Your task to perform on an android device: delete location history Image 0: 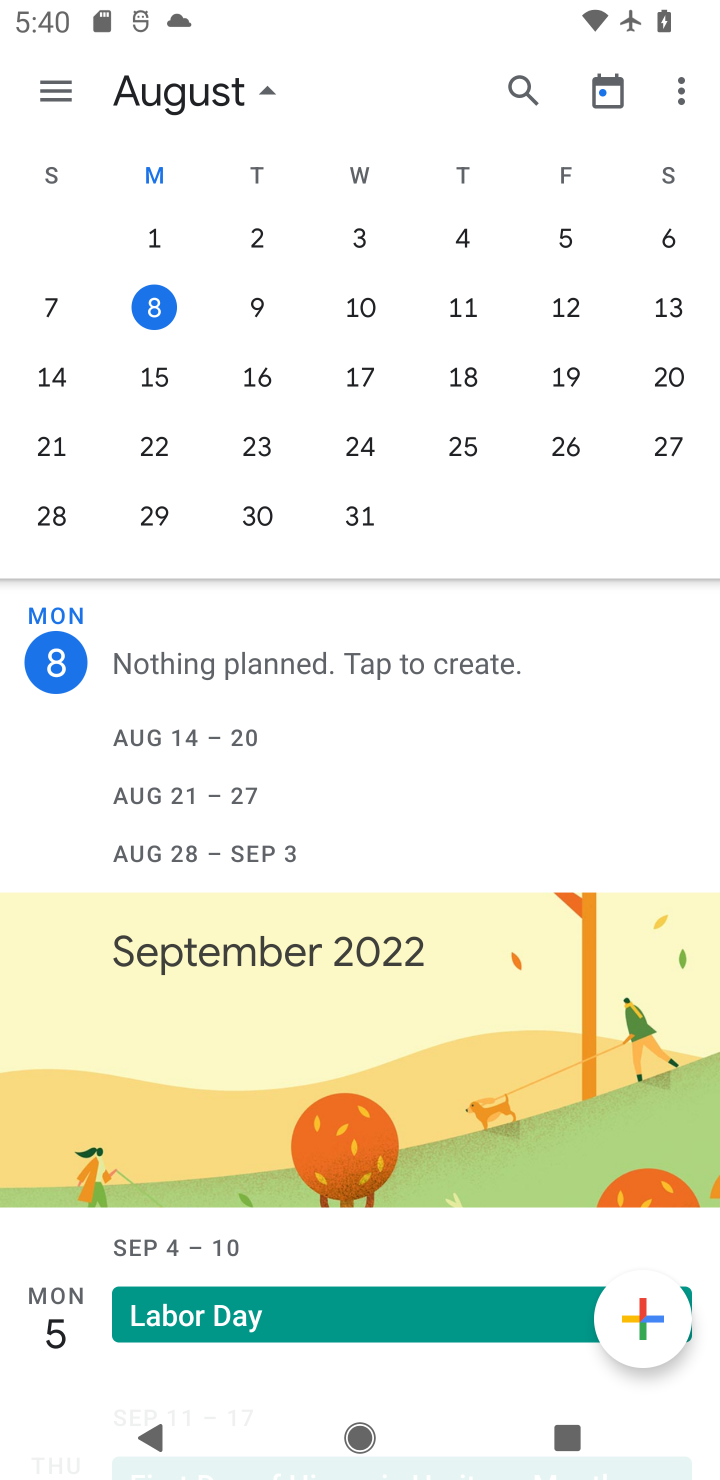
Step 0: press home button
Your task to perform on an android device: delete location history Image 1: 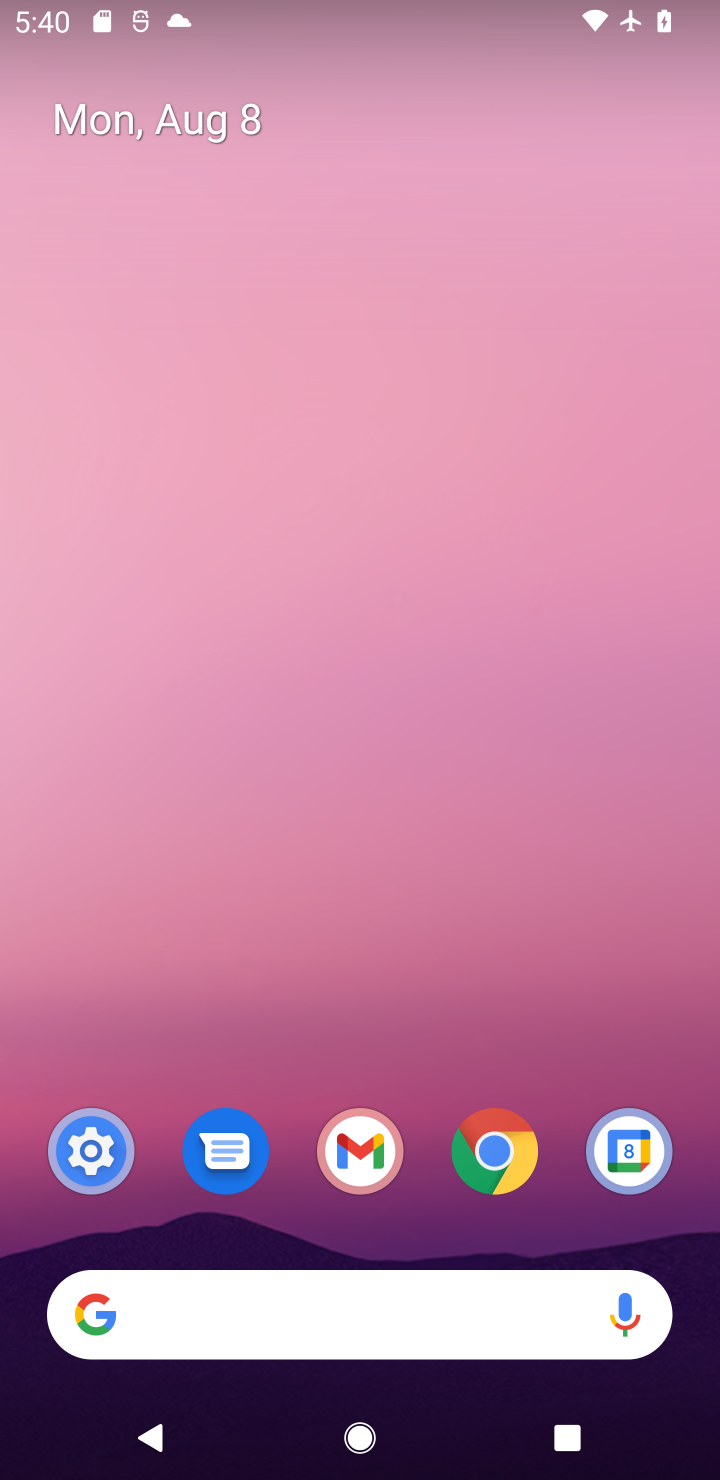
Step 1: drag from (333, 1018) to (333, 133)
Your task to perform on an android device: delete location history Image 2: 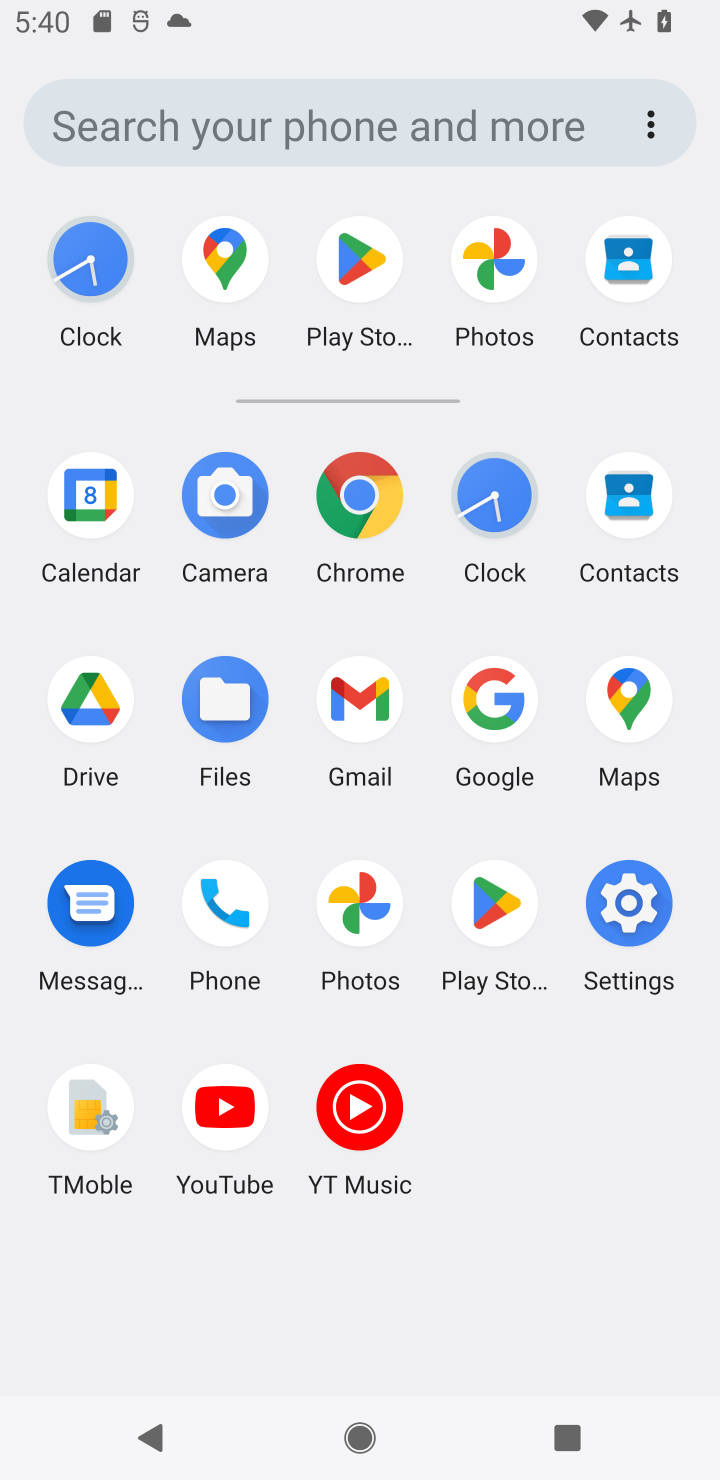
Step 2: click (606, 707)
Your task to perform on an android device: delete location history Image 3: 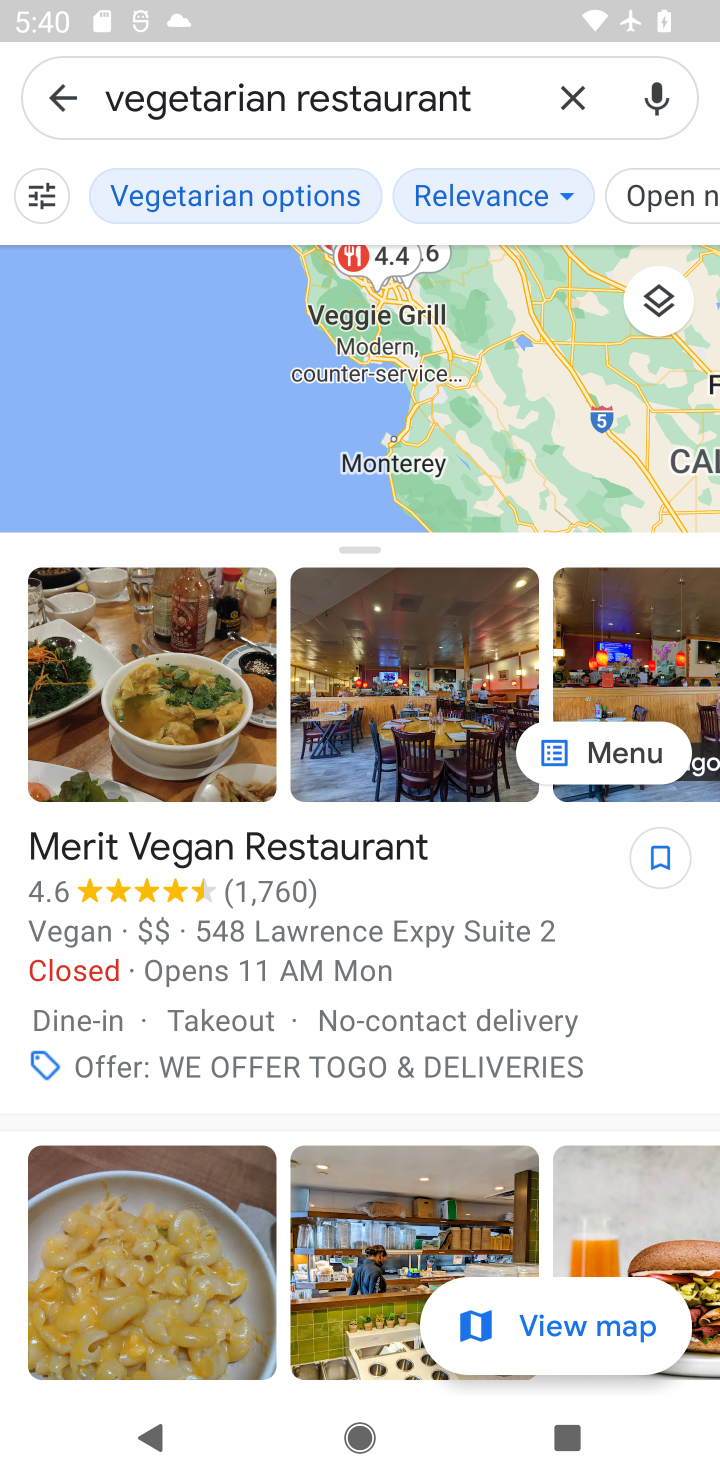
Step 3: click (72, 77)
Your task to perform on an android device: delete location history Image 4: 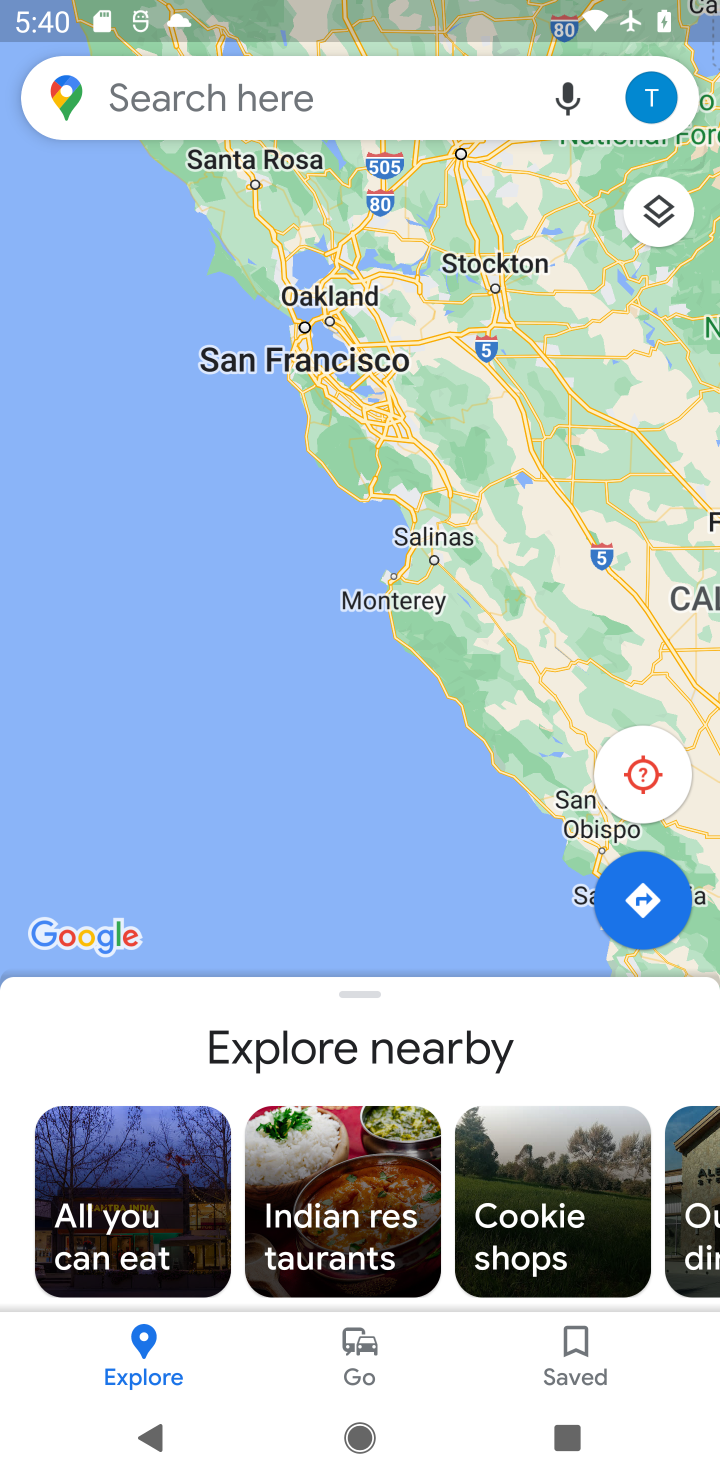
Step 4: click (655, 111)
Your task to perform on an android device: delete location history Image 5: 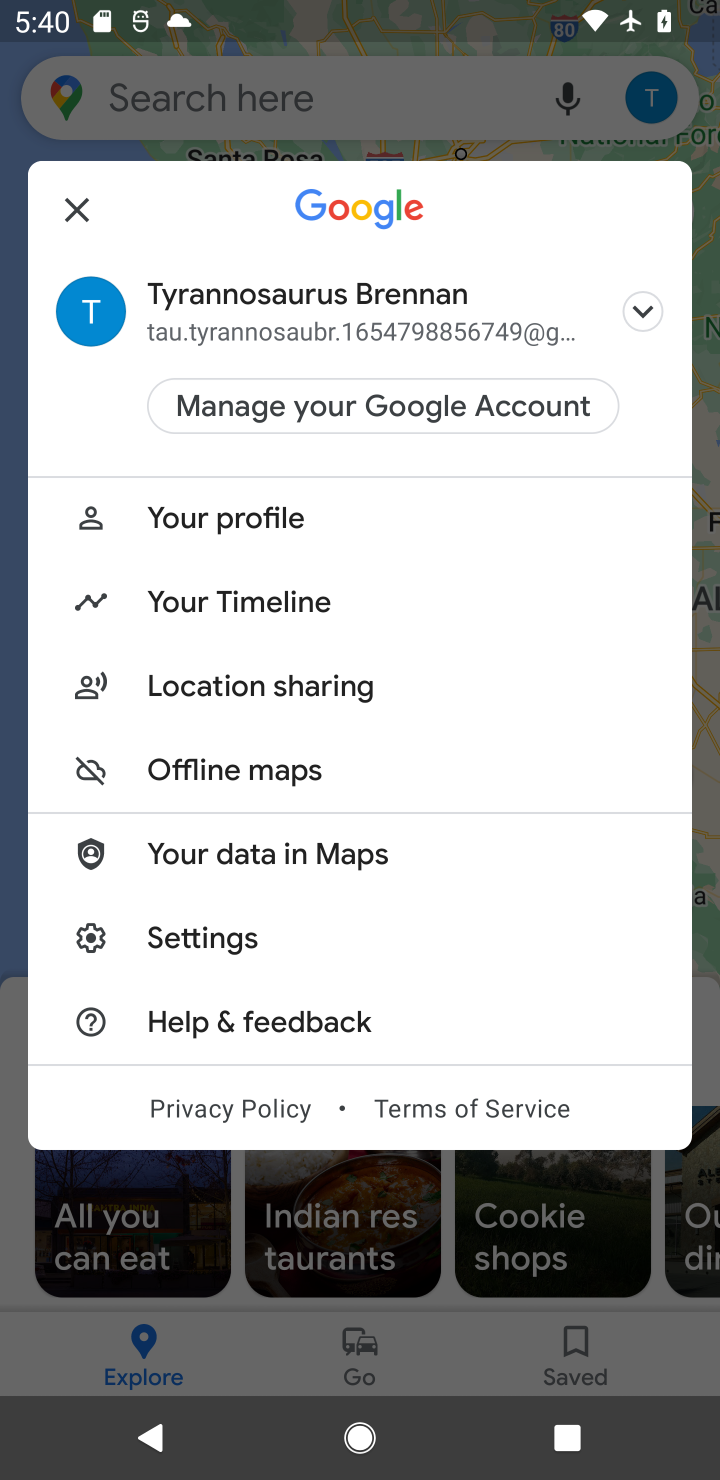
Step 5: click (236, 603)
Your task to perform on an android device: delete location history Image 6: 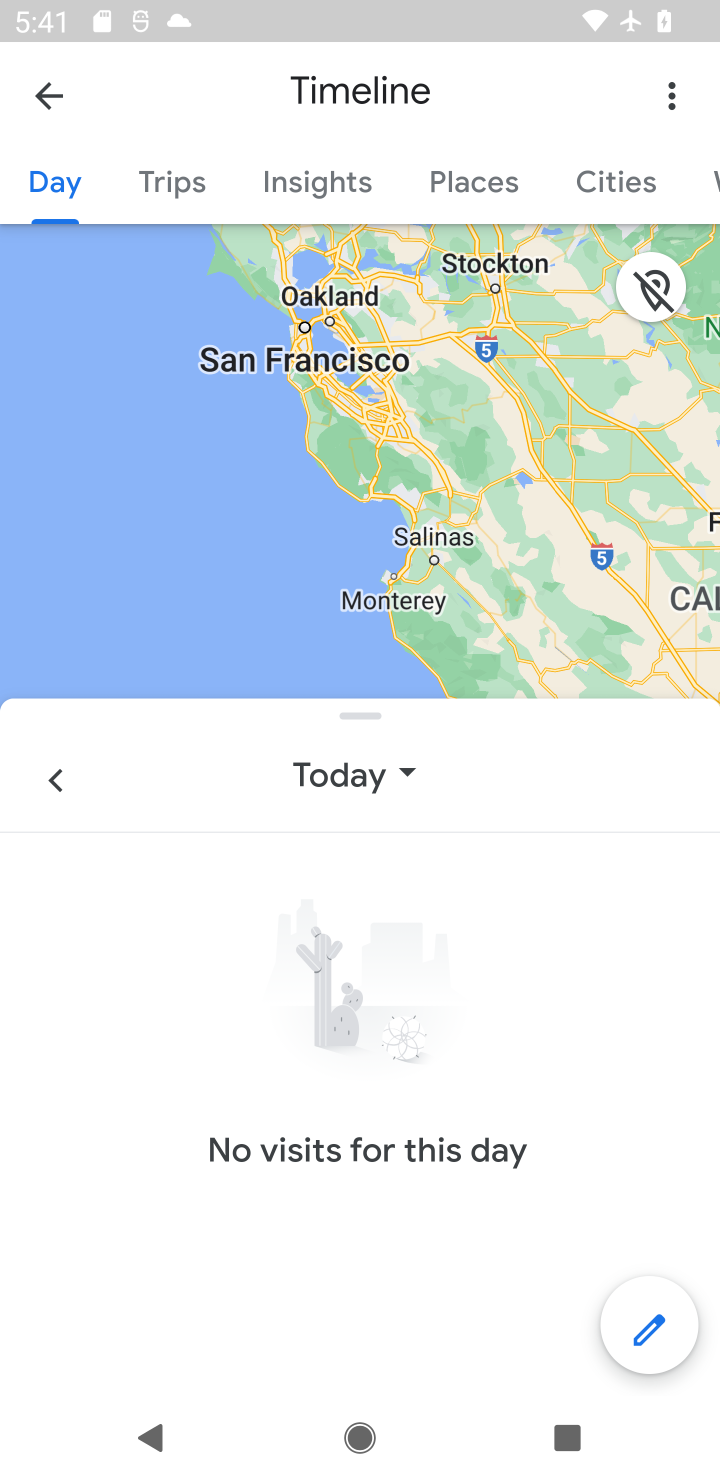
Step 6: click (664, 95)
Your task to perform on an android device: delete location history Image 7: 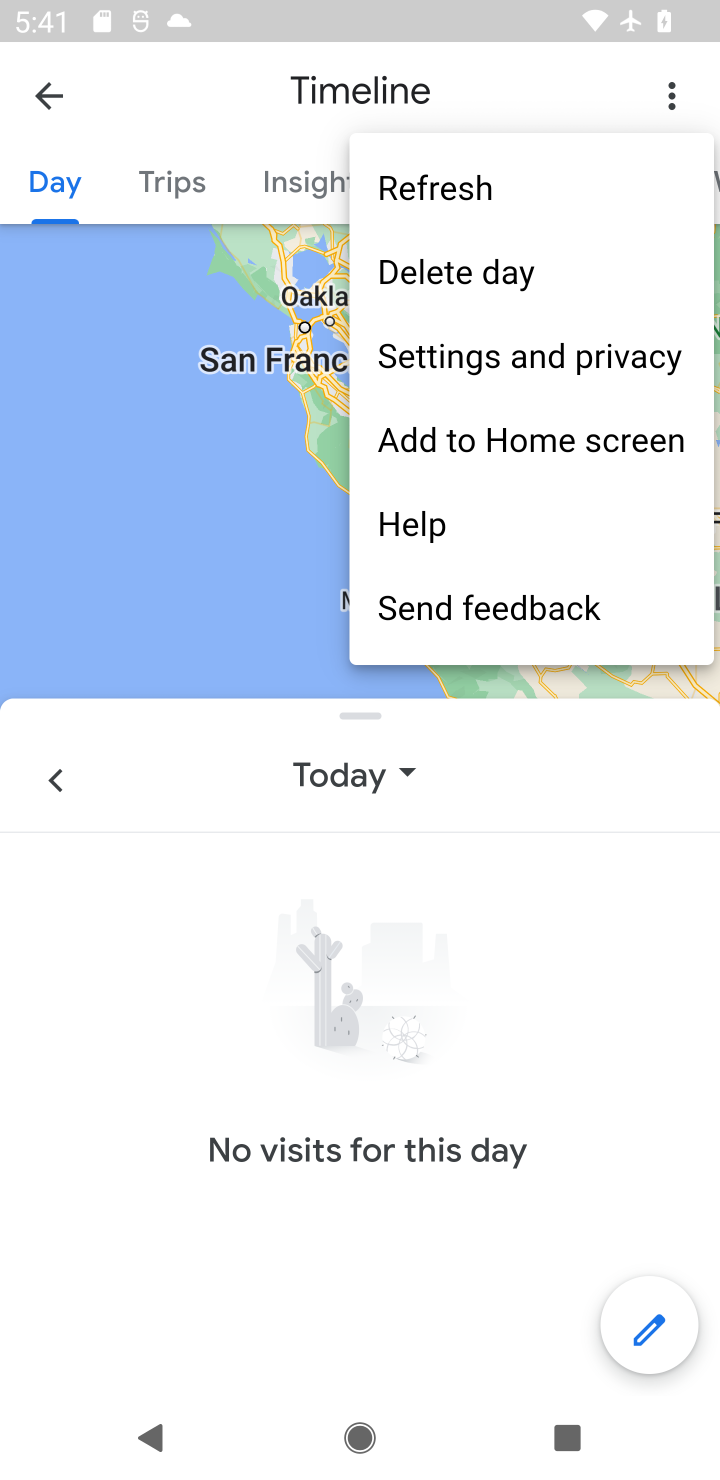
Step 7: click (487, 337)
Your task to perform on an android device: delete location history Image 8: 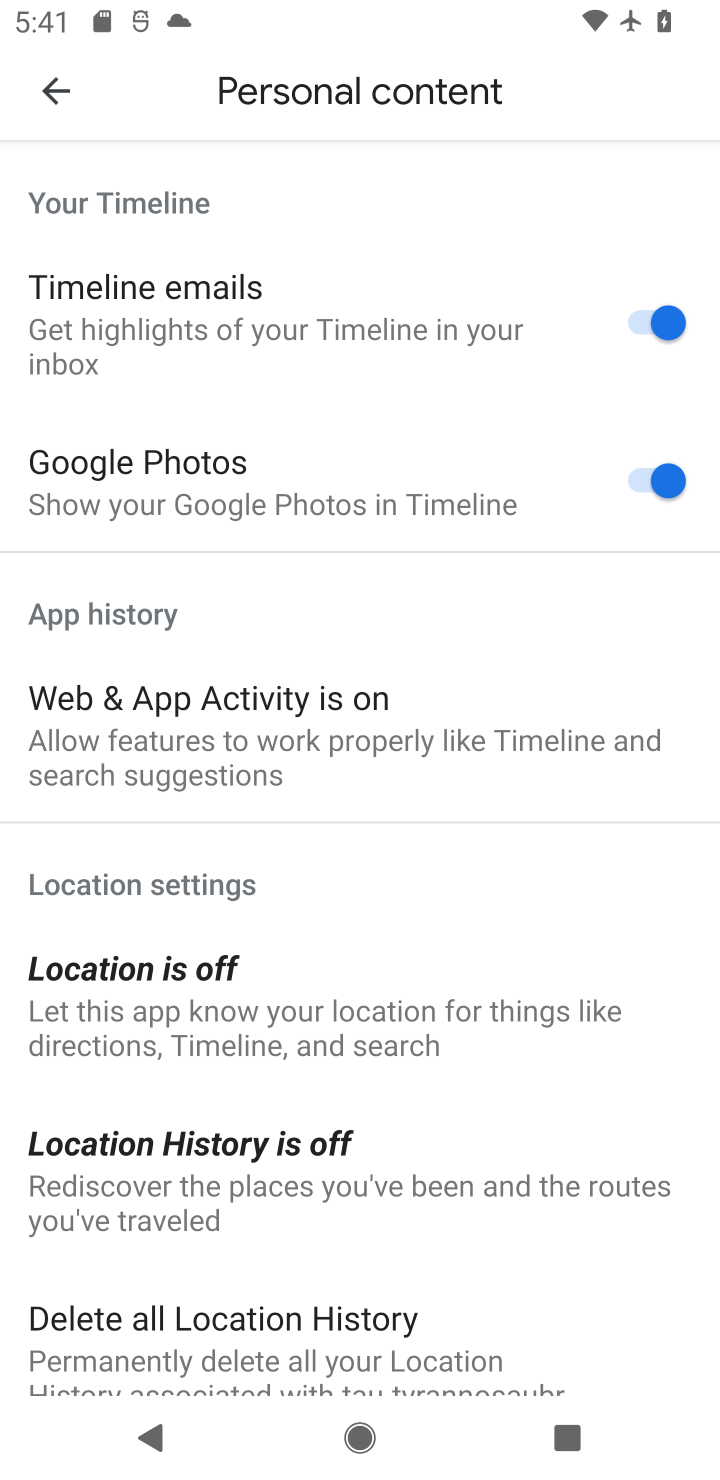
Step 8: drag from (407, 1245) to (381, 626)
Your task to perform on an android device: delete location history Image 9: 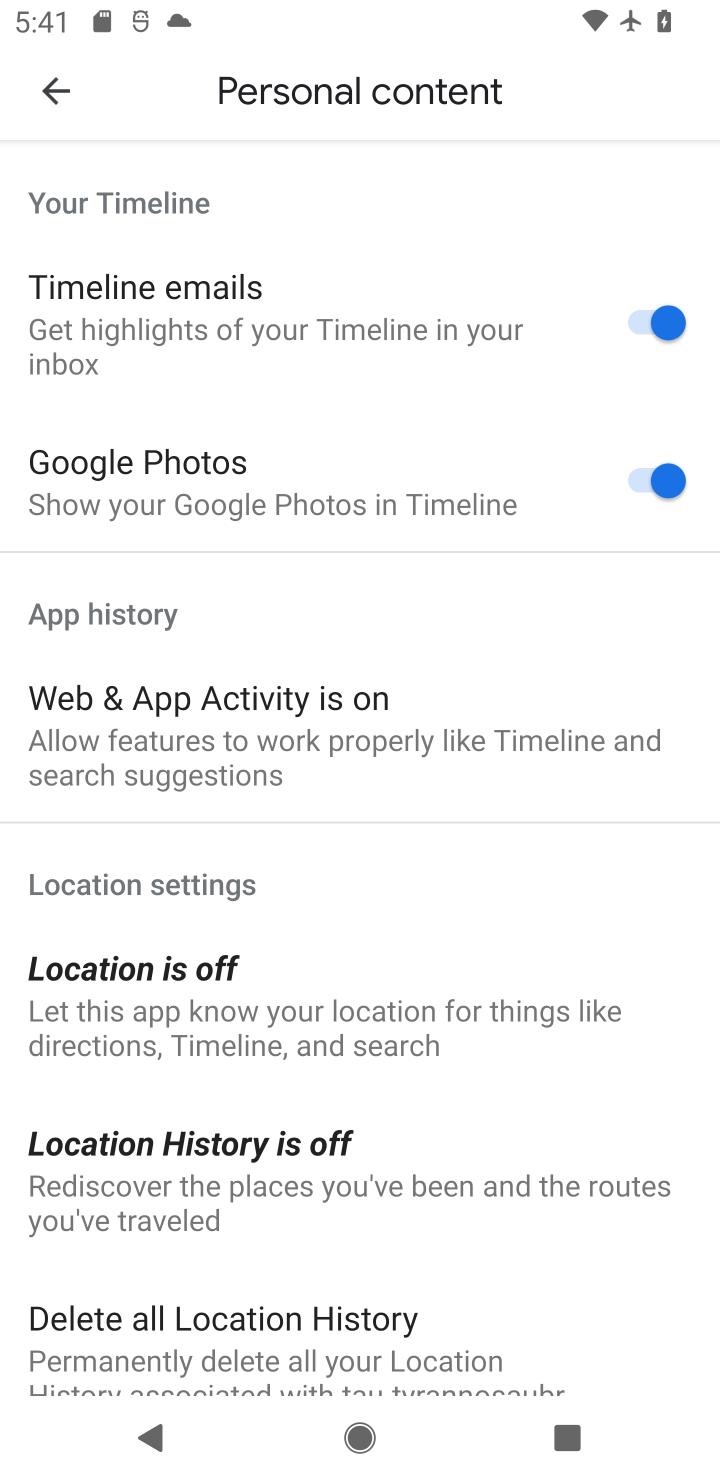
Step 9: click (305, 1329)
Your task to perform on an android device: delete location history Image 10: 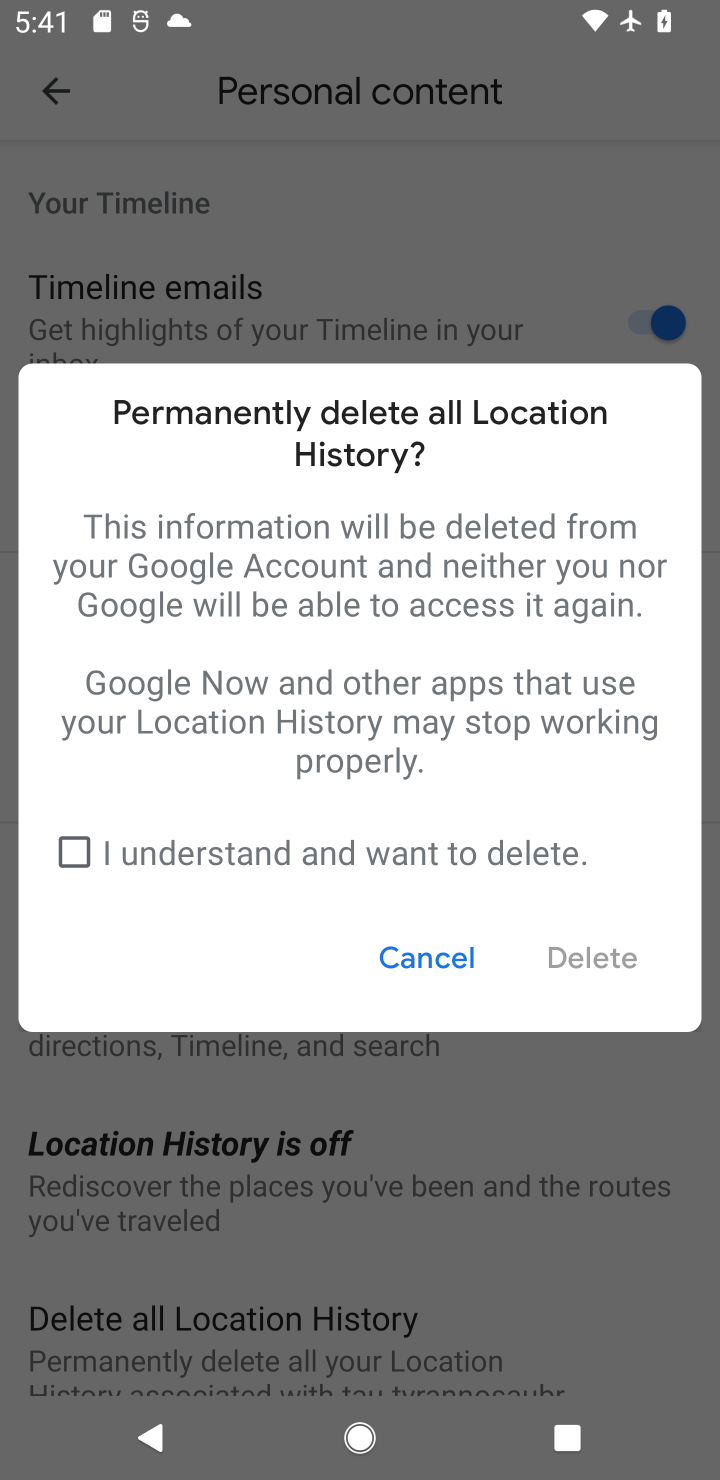
Step 10: click (384, 854)
Your task to perform on an android device: delete location history Image 11: 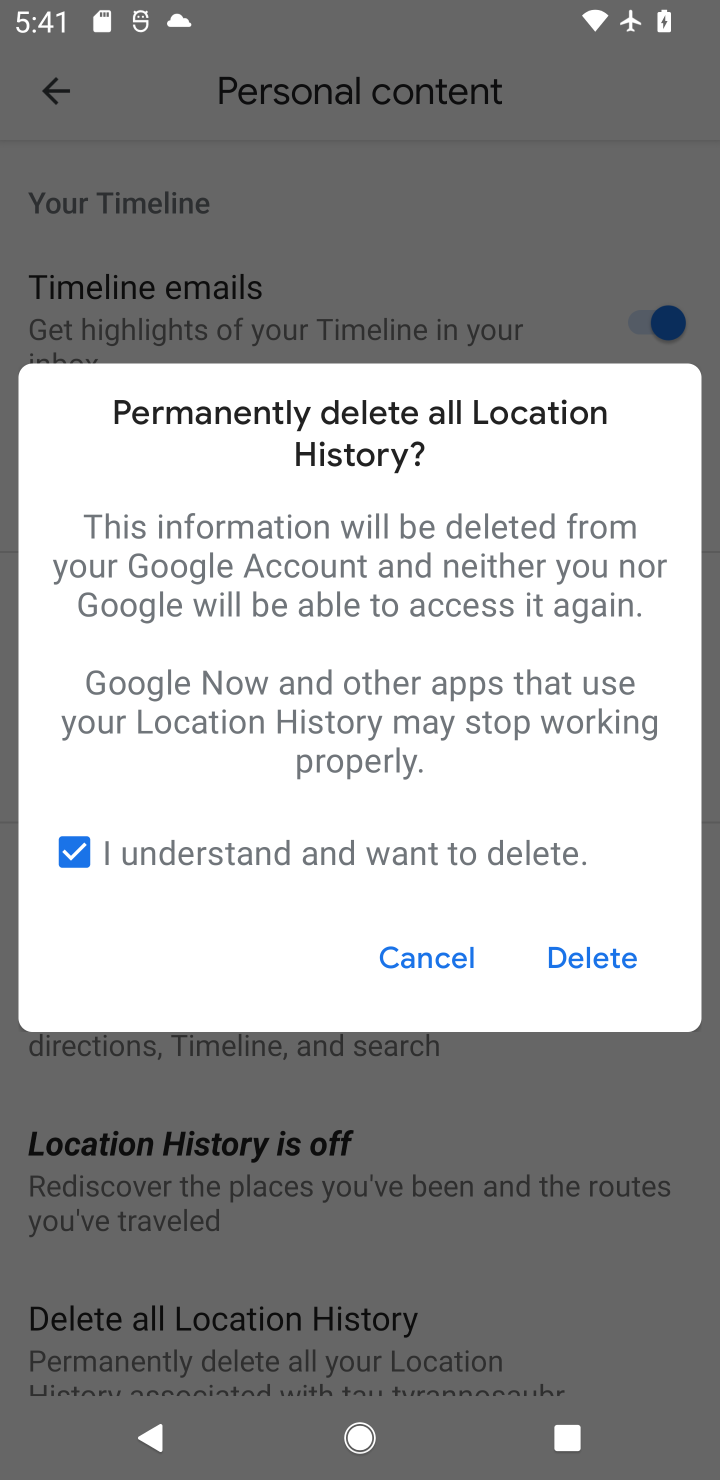
Step 11: click (583, 958)
Your task to perform on an android device: delete location history Image 12: 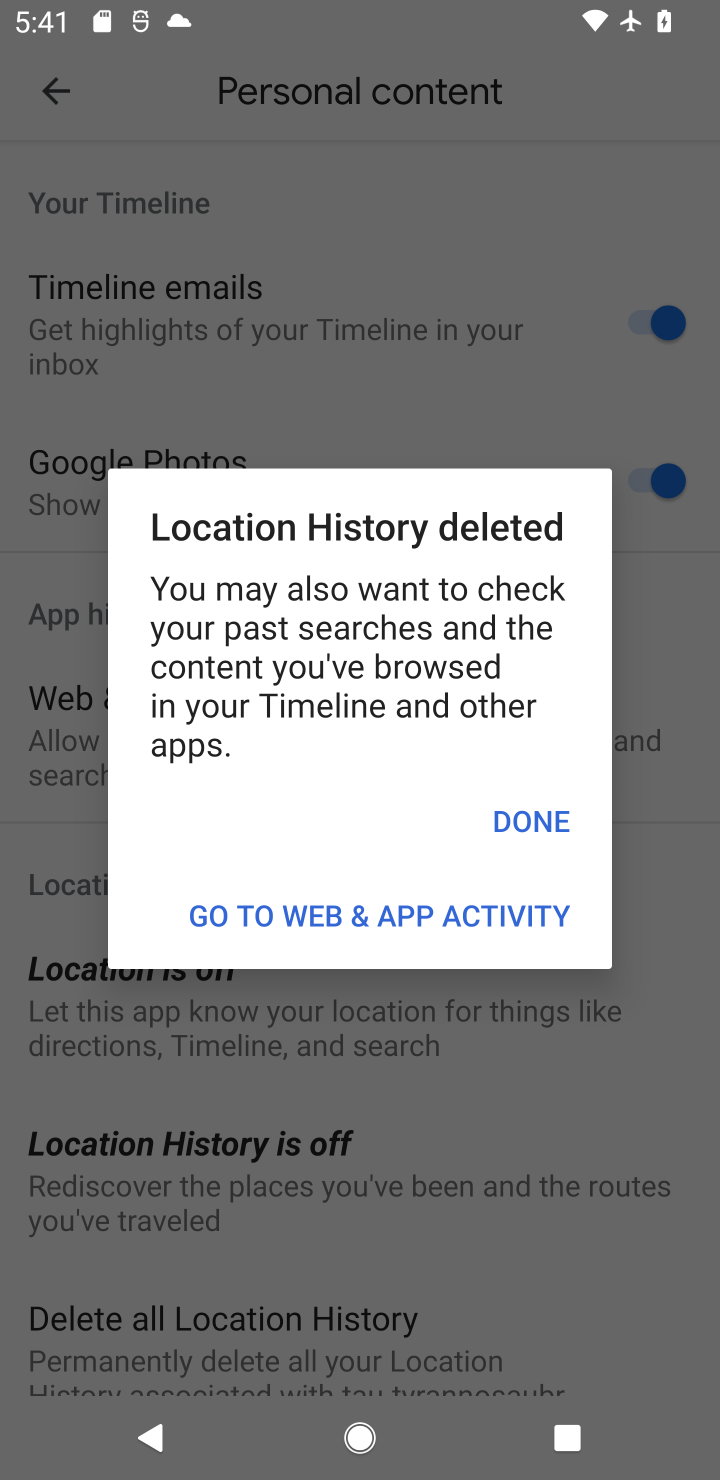
Step 12: task complete